Your task to perform on an android device: Open Google Maps Image 0: 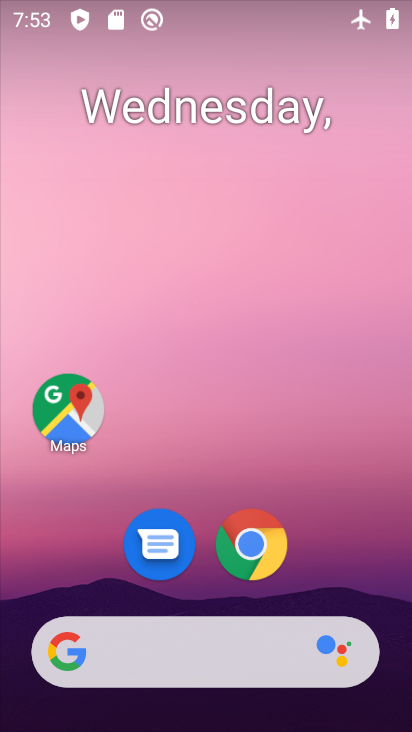
Step 0: drag from (206, 712) to (210, 214)
Your task to perform on an android device: Open Google Maps Image 1: 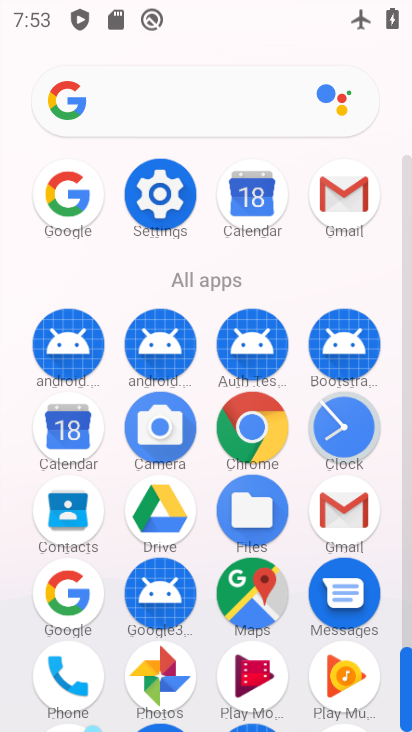
Step 1: click (253, 586)
Your task to perform on an android device: Open Google Maps Image 2: 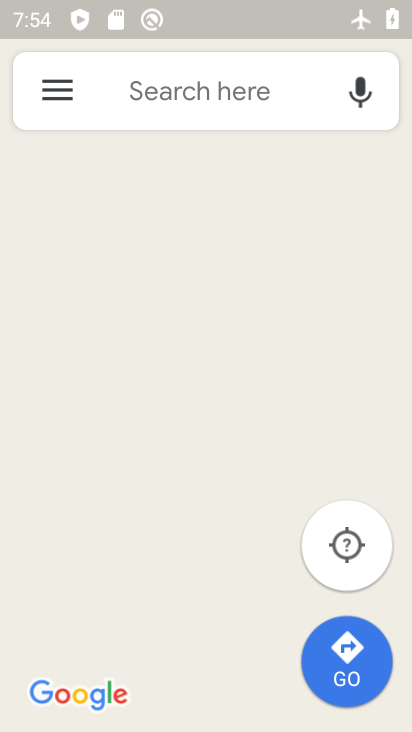
Step 2: task complete